Your task to perform on an android device: turn on translation in the chrome app Image 0: 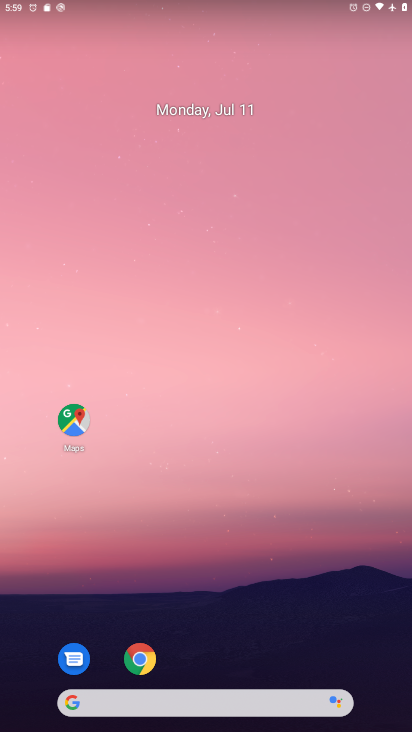
Step 0: click (142, 660)
Your task to perform on an android device: turn on translation in the chrome app Image 1: 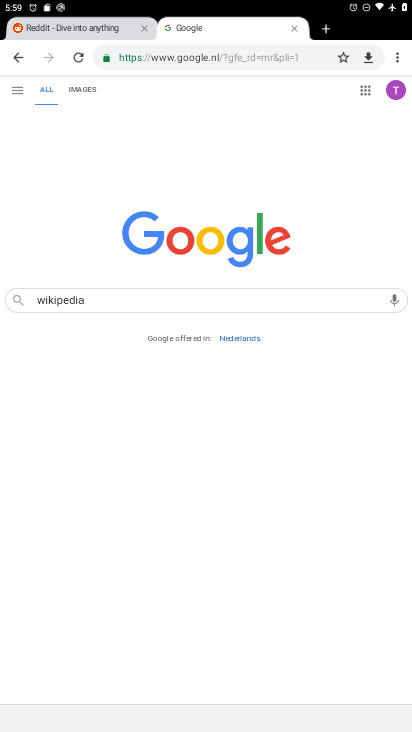
Step 1: click (393, 59)
Your task to perform on an android device: turn on translation in the chrome app Image 2: 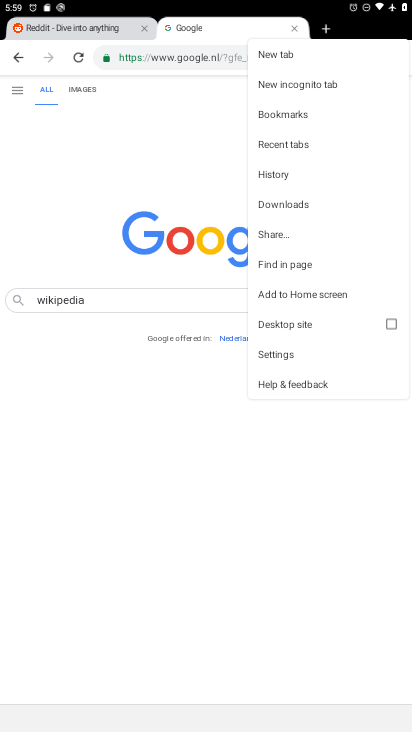
Step 2: click (285, 354)
Your task to perform on an android device: turn on translation in the chrome app Image 3: 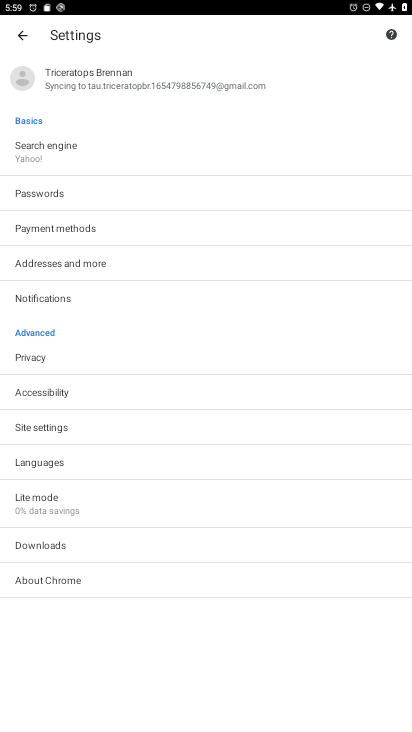
Step 3: click (36, 462)
Your task to perform on an android device: turn on translation in the chrome app Image 4: 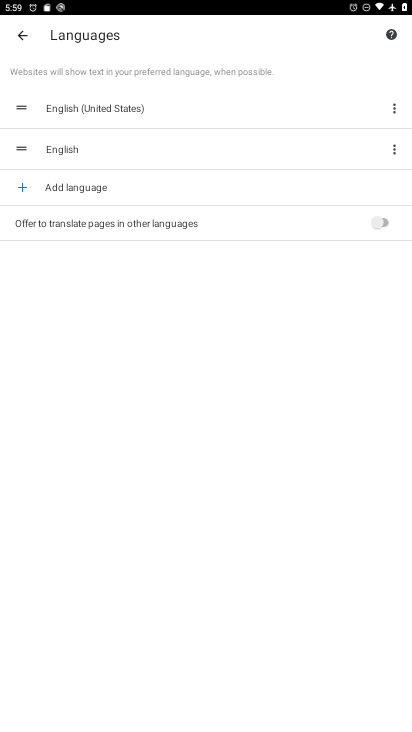
Step 4: click (386, 224)
Your task to perform on an android device: turn on translation in the chrome app Image 5: 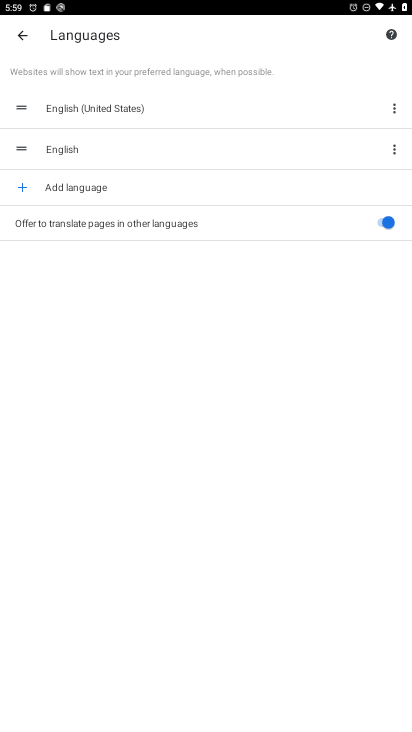
Step 5: task complete